Your task to perform on an android device: open app "Google Maps" (install if not already installed) Image 0: 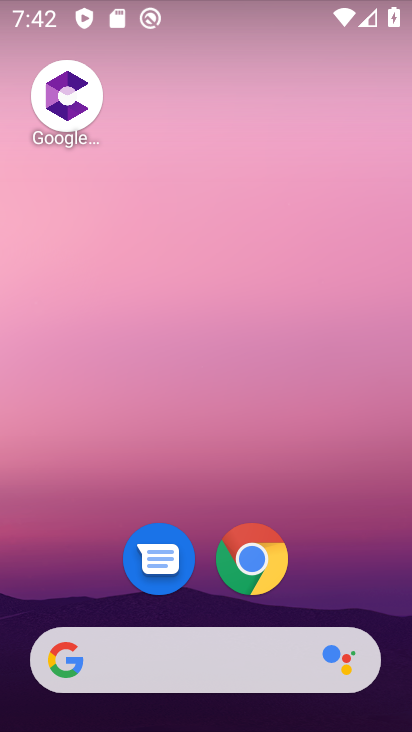
Step 0: drag from (185, 652) to (215, 252)
Your task to perform on an android device: open app "Google Maps" (install if not already installed) Image 1: 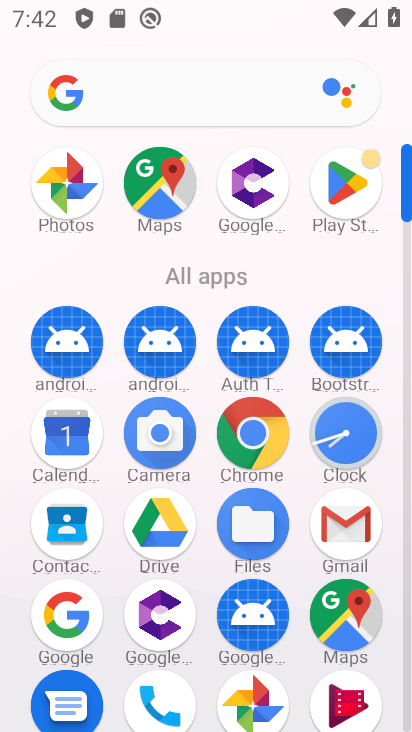
Step 1: click (339, 193)
Your task to perform on an android device: open app "Google Maps" (install if not already installed) Image 2: 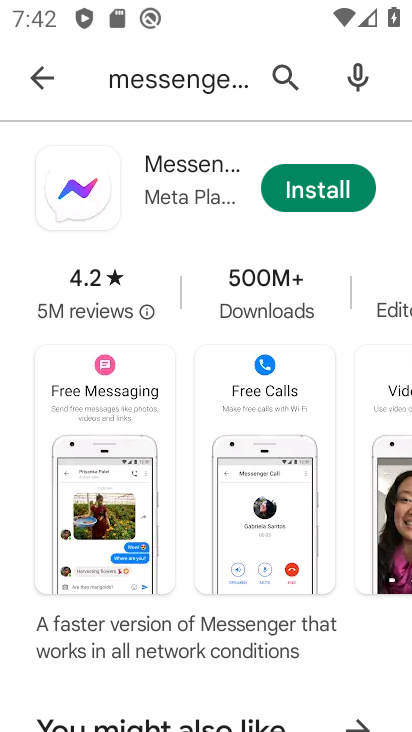
Step 2: click (280, 68)
Your task to perform on an android device: open app "Google Maps" (install if not already installed) Image 3: 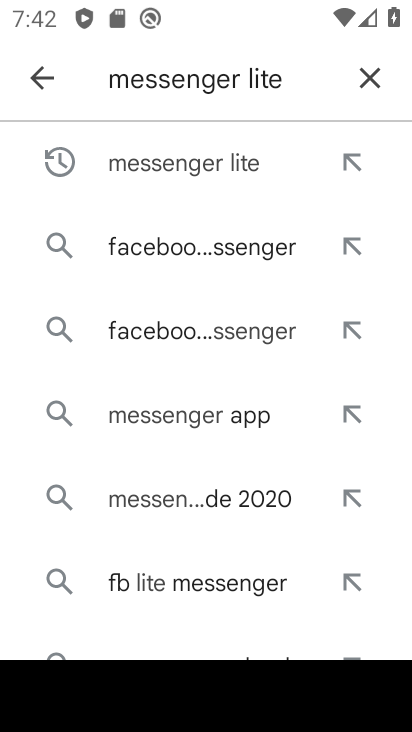
Step 3: click (362, 89)
Your task to perform on an android device: open app "Google Maps" (install if not already installed) Image 4: 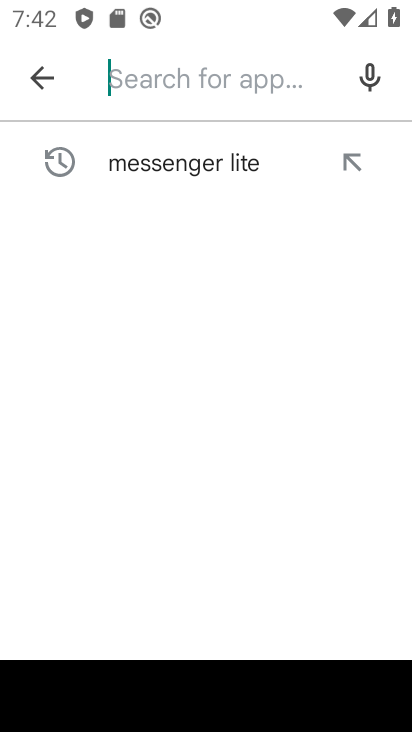
Step 4: type "google maps"
Your task to perform on an android device: open app "Google Maps" (install if not already installed) Image 5: 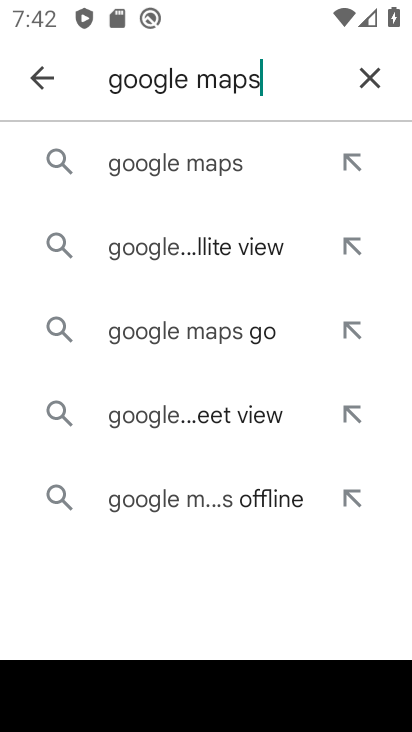
Step 5: click (141, 172)
Your task to perform on an android device: open app "Google Maps" (install if not already installed) Image 6: 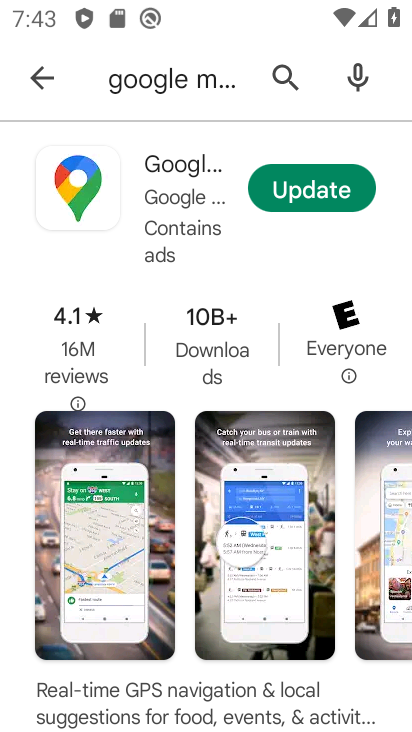
Step 6: click (141, 172)
Your task to perform on an android device: open app "Google Maps" (install if not already installed) Image 7: 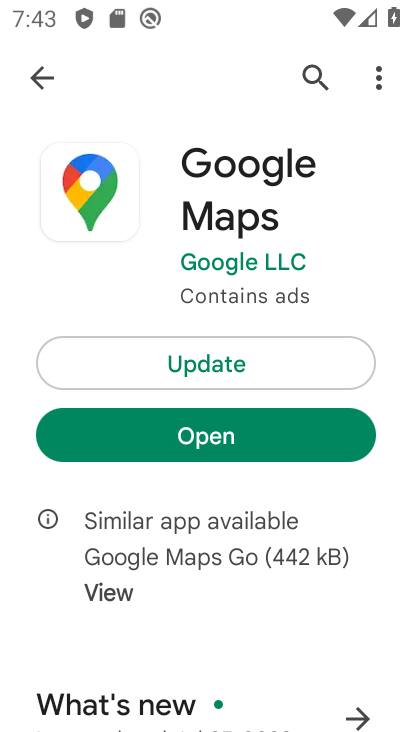
Step 7: click (235, 428)
Your task to perform on an android device: open app "Google Maps" (install if not already installed) Image 8: 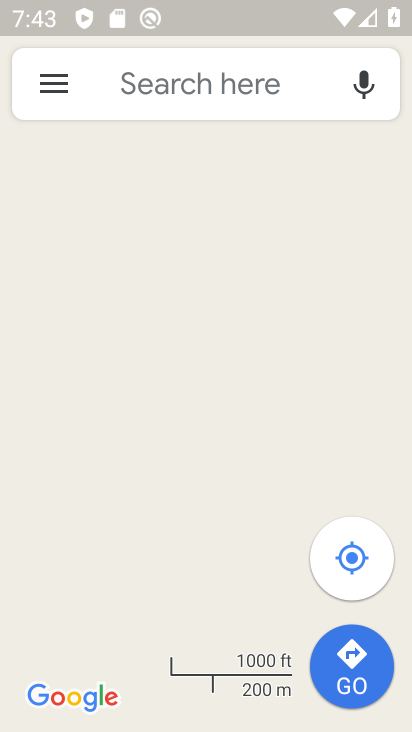
Step 8: task complete